Your task to perform on an android device: Open Android settings Image 0: 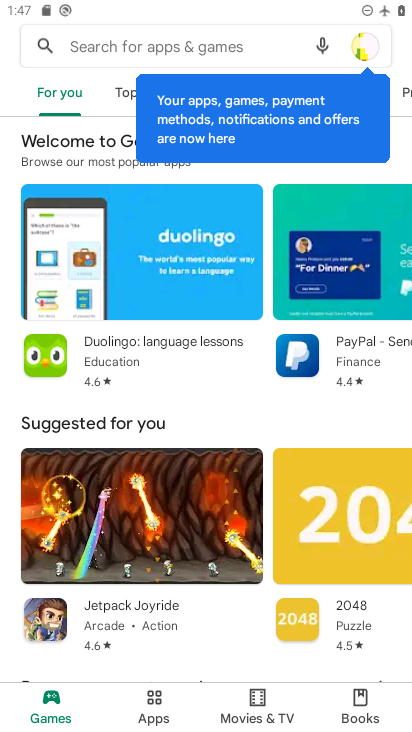
Step 0: press home button
Your task to perform on an android device: Open Android settings Image 1: 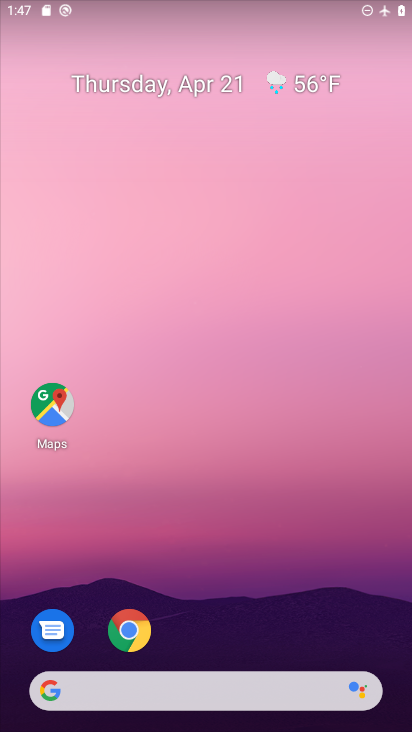
Step 1: drag from (207, 690) to (178, 97)
Your task to perform on an android device: Open Android settings Image 2: 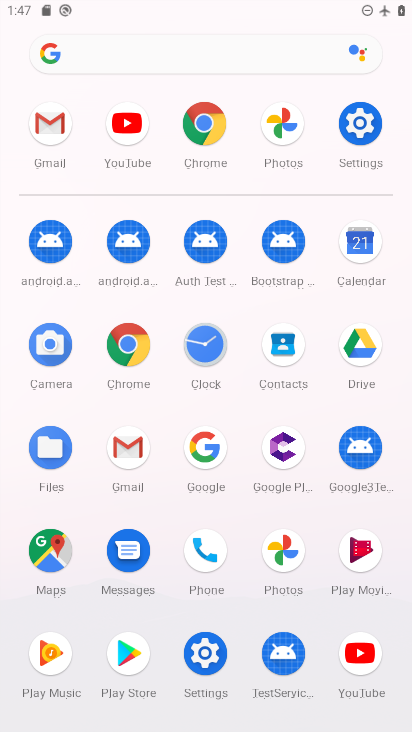
Step 2: click (207, 650)
Your task to perform on an android device: Open Android settings Image 3: 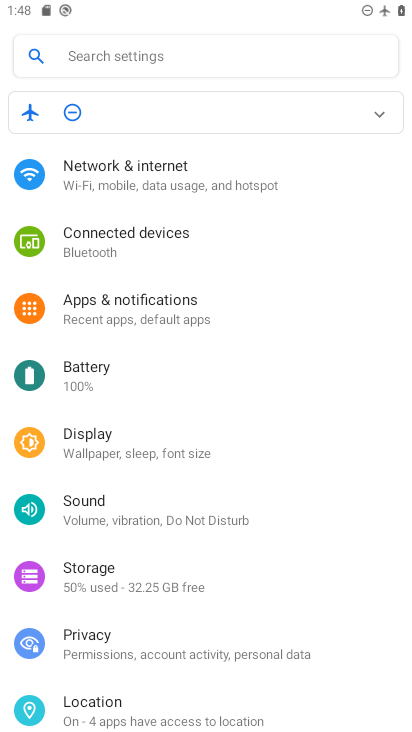
Step 3: drag from (204, 669) to (185, 72)
Your task to perform on an android device: Open Android settings Image 4: 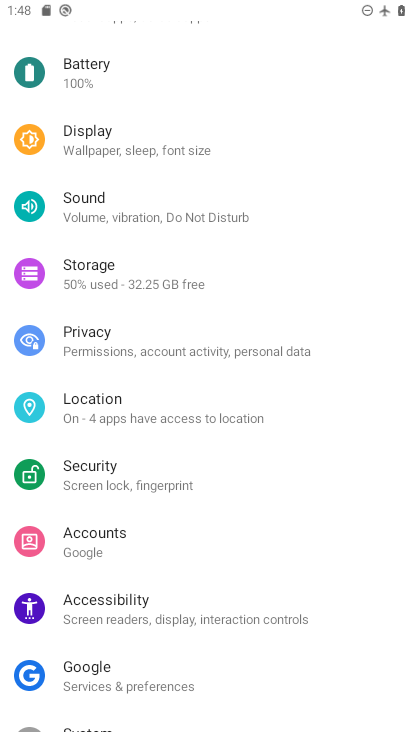
Step 4: drag from (191, 698) to (194, 136)
Your task to perform on an android device: Open Android settings Image 5: 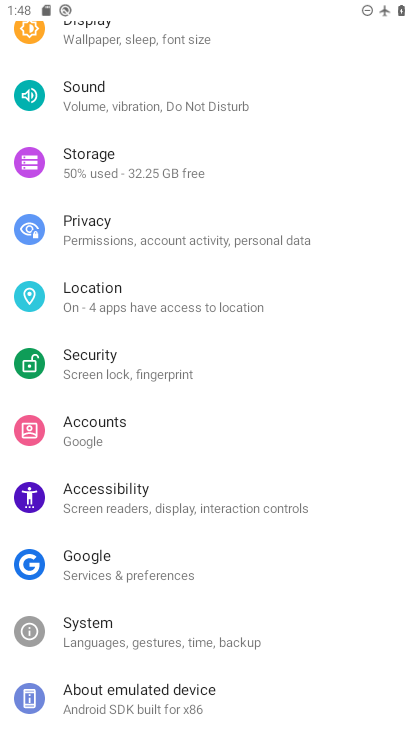
Step 5: click (181, 696)
Your task to perform on an android device: Open Android settings Image 6: 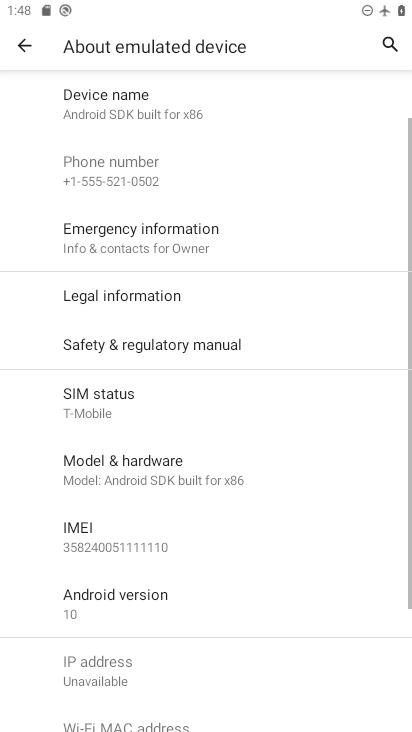
Step 6: task complete